Your task to perform on an android device: Go to internet settings Image 0: 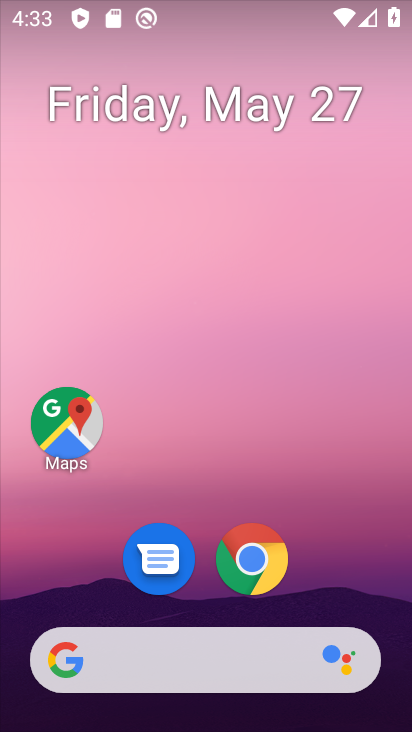
Step 0: drag from (203, 8) to (212, 460)
Your task to perform on an android device: Go to internet settings Image 1: 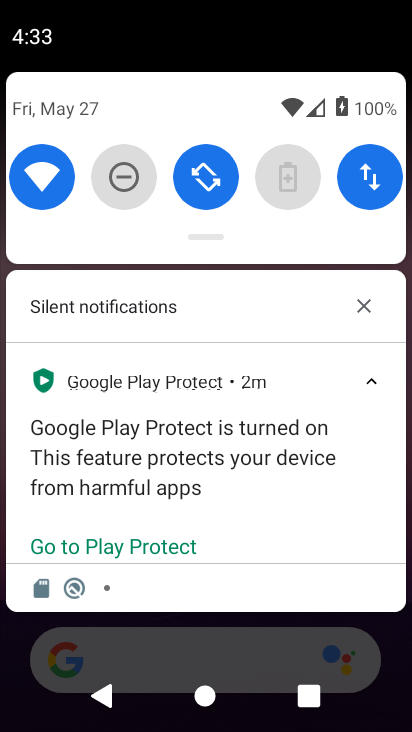
Step 1: click (354, 177)
Your task to perform on an android device: Go to internet settings Image 2: 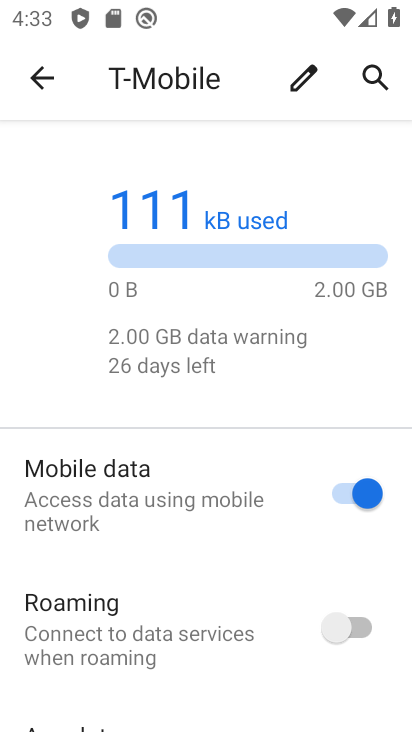
Step 2: task complete